Your task to perform on an android device: Open display settings Image 0: 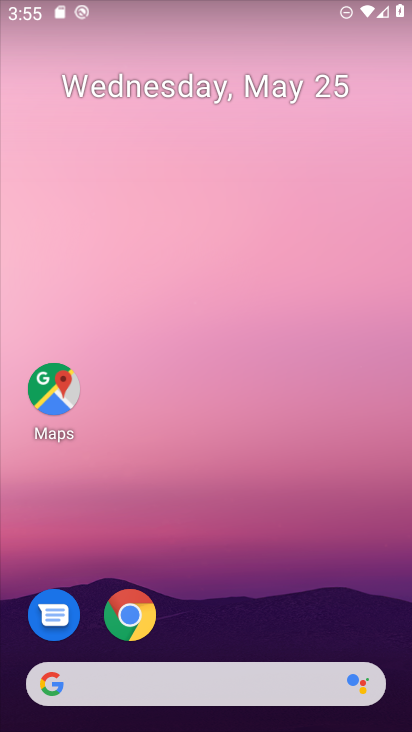
Step 0: drag from (241, 581) to (246, 46)
Your task to perform on an android device: Open display settings Image 1: 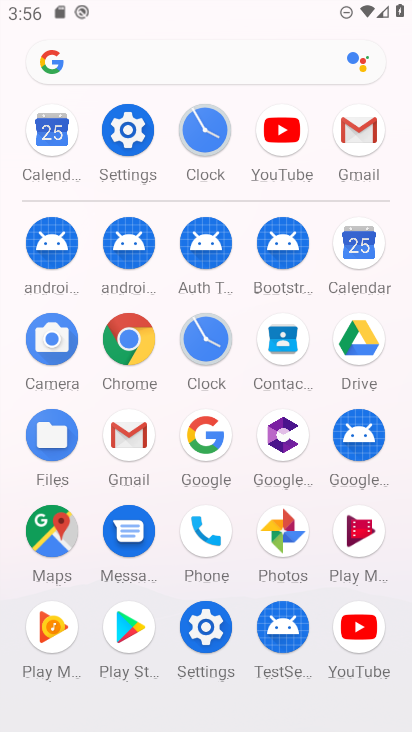
Step 1: click (130, 121)
Your task to perform on an android device: Open display settings Image 2: 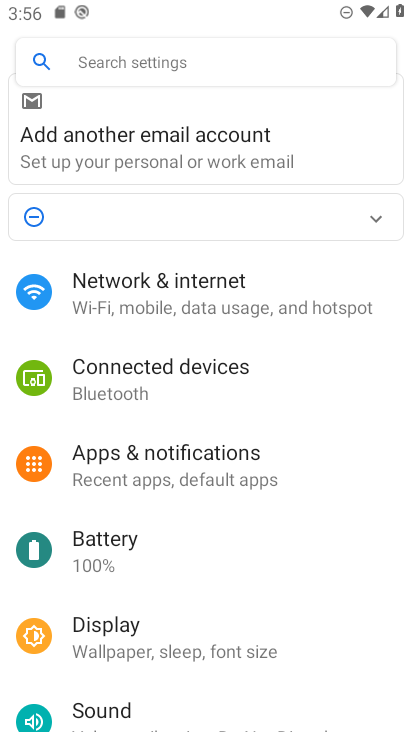
Step 2: click (125, 628)
Your task to perform on an android device: Open display settings Image 3: 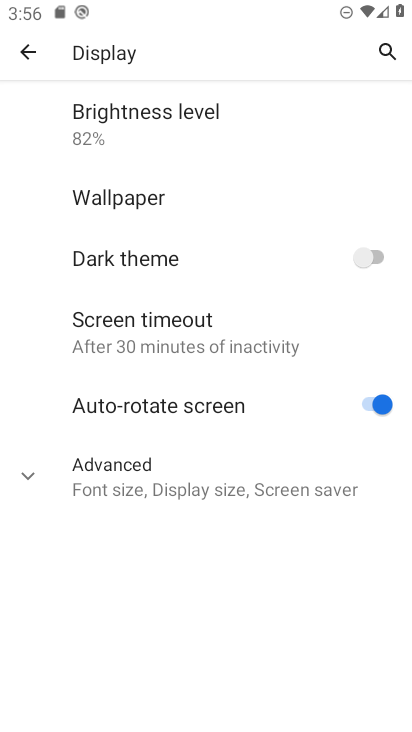
Step 3: task complete